Your task to perform on an android device: Go to notification settings Image 0: 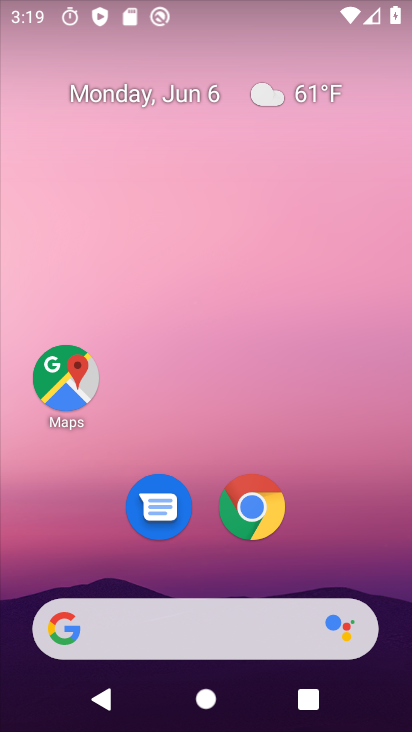
Step 0: drag from (192, 558) to (204, 113)
Your task to perform on an android device: Go to notification settings Image 1: 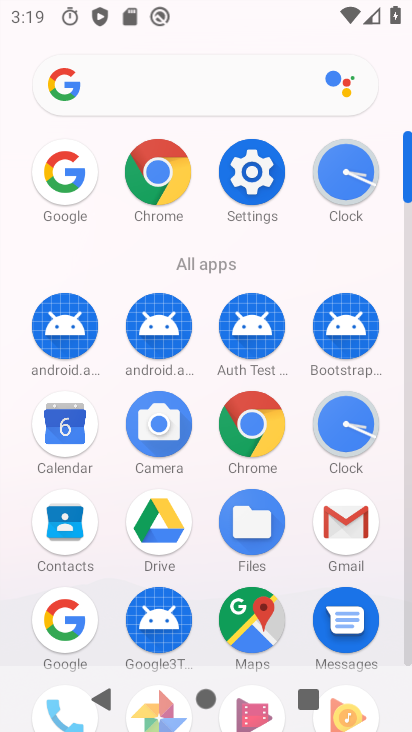
Step 1: click (255, 185)
Your task to perform on an android device: Go to notification settings Image 2: 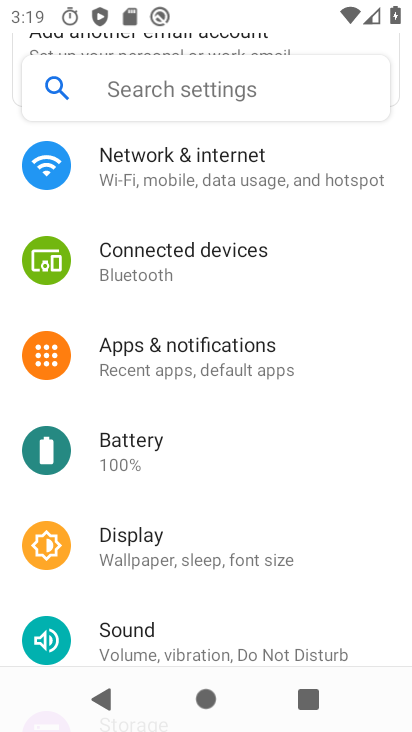
Step 2: click (213, 344)
Your task to perform on an android device: Go to notification settings Image 3: 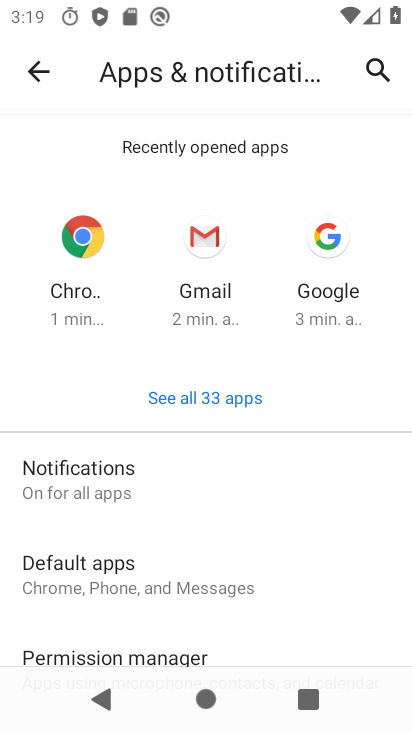
Step 3: click (132, 462)
Your task to perform on an android device: Go to notification settings Image 4: 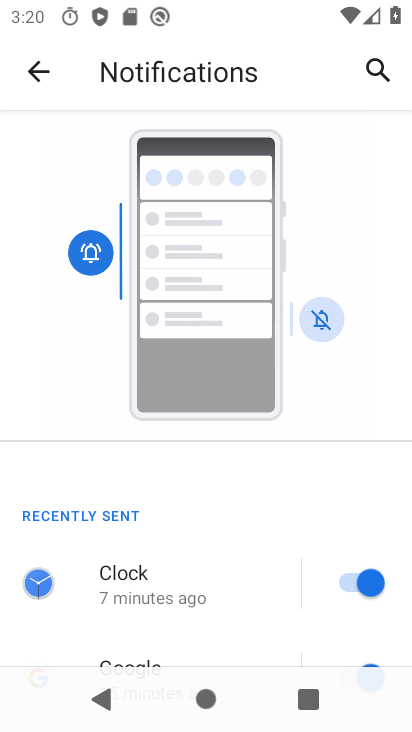
Step 4: task complete